Your task to perform on an android device: delete the emails in spam in the gmail app Image 0: 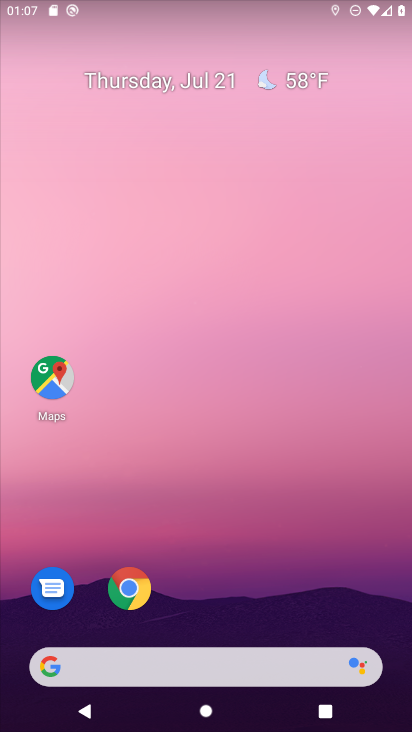
Step 0: drag from (205, 622) to (332, 1)
Your task to perform on an android device: delete the emails in spam in the gmail app Image 1: 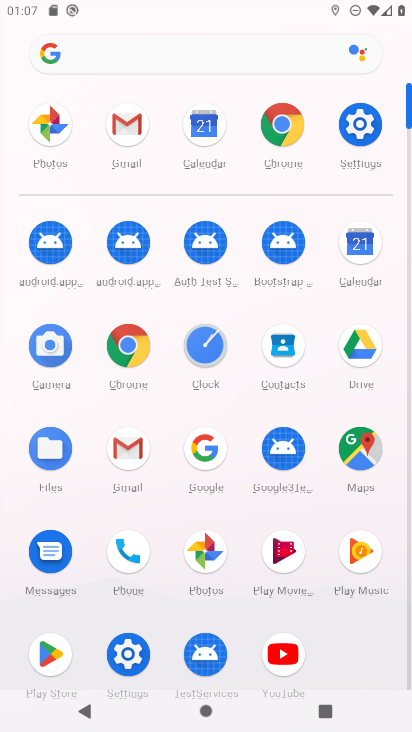
Step 1: click (129, 459)
Your task to perform on an android device: delete the emails in spam in the gmail app Image 2: 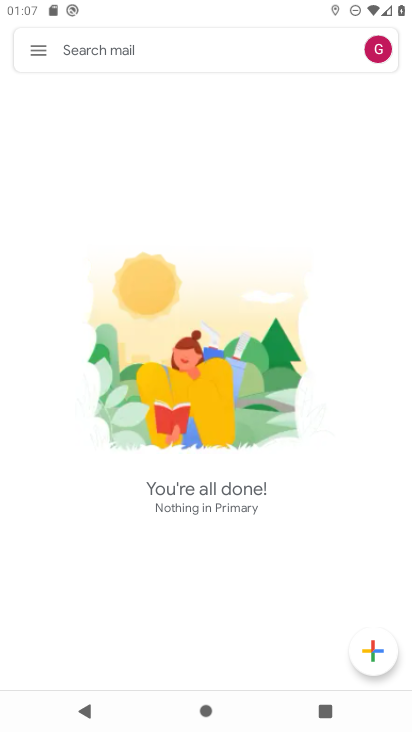
Step 2: click (41, 52)
Your task to perform on an android device: delete the emails in spam in the gmail app Image 3: 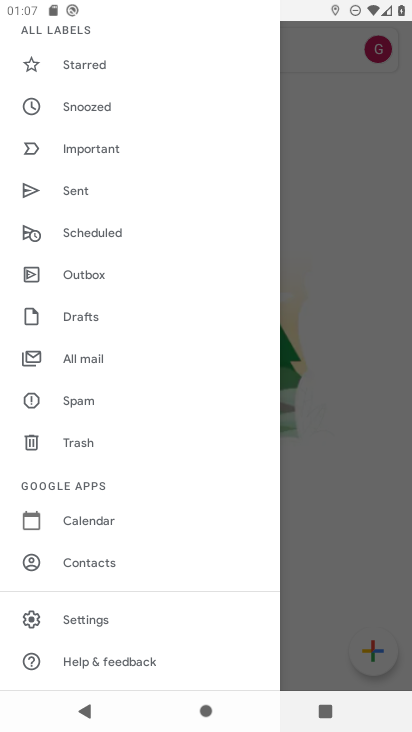
Step 3: click (82, 394)
Your task to perform on an android device: delete the emails in spam in the gmail app Image 4: 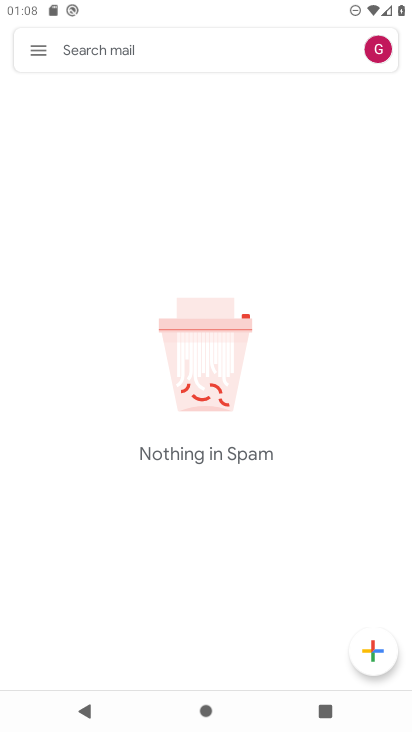
Step 4: task complete